Your task to perform on an android device: clear all cookies in the chrome app Image 0: 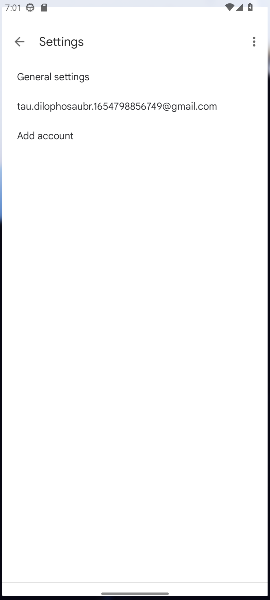
Step 0: press home button
Your task to perform on an android device: clear all cookies in the chrome app Image 1: 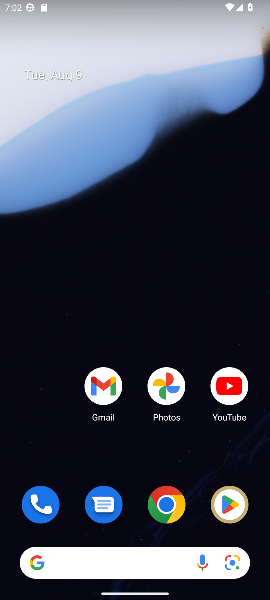
Step 1: click (179, 519)
Your task to perform on an android device: clear all cookies in the chrome app Image 2: 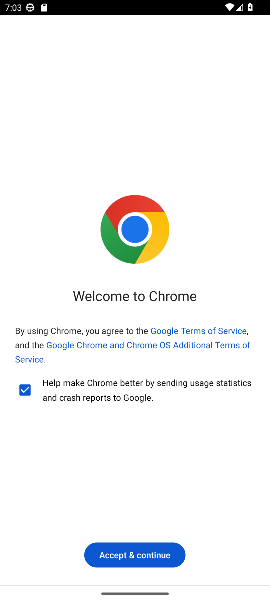
Step 2: click (151, 559)
Your task to perform on an android device: clear all cookies in the chrome app Image 3: 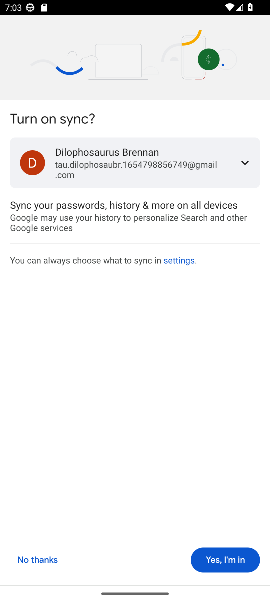
Step 3: click (198, 555)
Your task to perform on an android device: clear all cookies in the chrome app Image 4: 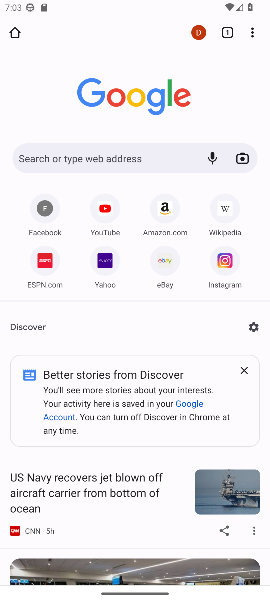
Step 4: drag from (252, 31) to (129, 294)
Your task to perform on an android device: clear all cookies in the chrome app Image 5: 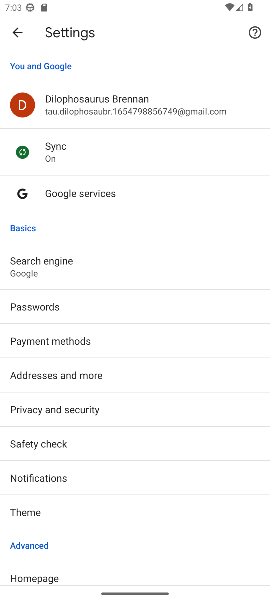
Step 5: drag from (156, 483) to (169, 280)
Your task to perform on an android device: clear all cookies in the chrome app Image 6: 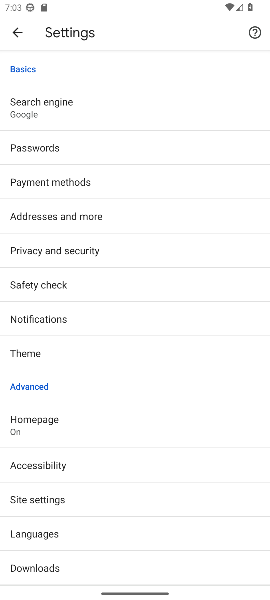
Step 6: click (74, 252)
Your task to perform on an android device: clear all cookies in the chrome app Image 7: 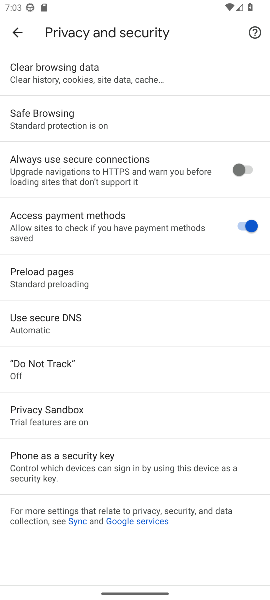
Step 7: click (35, 76)
Your task to perform on an android device: clear all cookies in the chrome app Image 8: 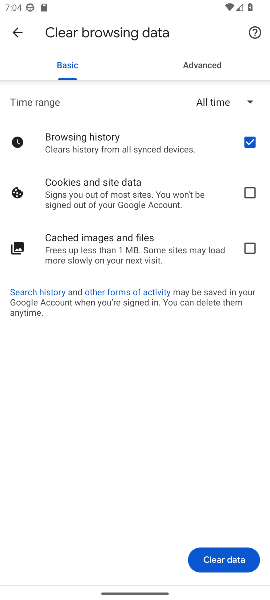
Step 8: click (224, 549)
Your task to perform on an android device: clear all cookies in the chrome app Image 9: 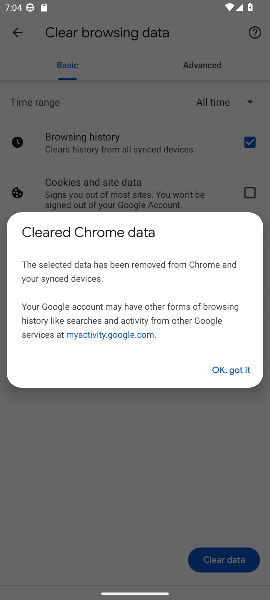
Step 9: click (220, 374)
Your task to perform on an android device: clear all cookies in the chrome app Image 10: 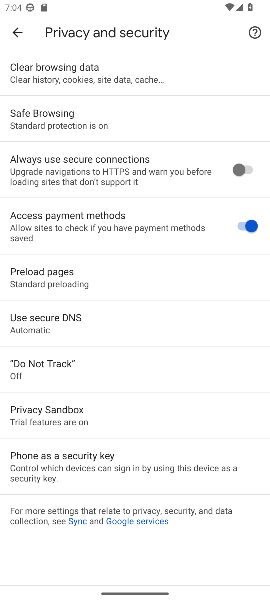
Step 10: click (69, 73)
Your task to perform on an android device: clear all cookies in the chrome app Image 11: 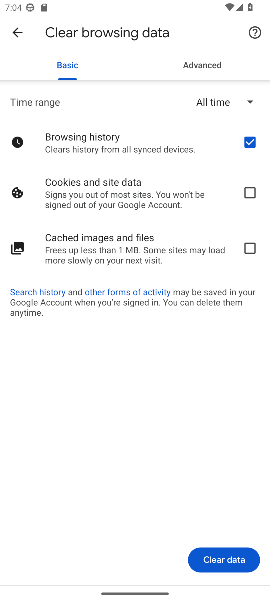
Step 11: click (256, 190)
Your task to perform on an android device: clear all cookies in the chrome app Image 12: 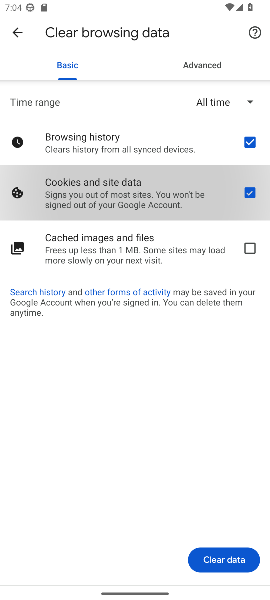
Step 12: click (254, 257)
Your task to perform on an android device: clear all cookies in the chrome app Image 13: 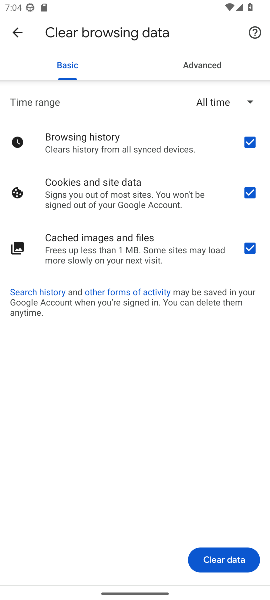
Step 13: click (196, 558)
Your task to perform on an android device: clear all cookies in the chrome app Image 14: 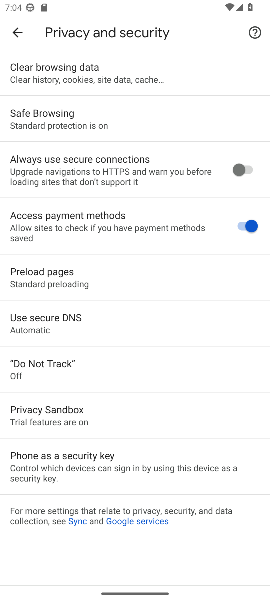
Step 14: task complete